Your task to perform on an android device: Open accessibility settings Image 0: 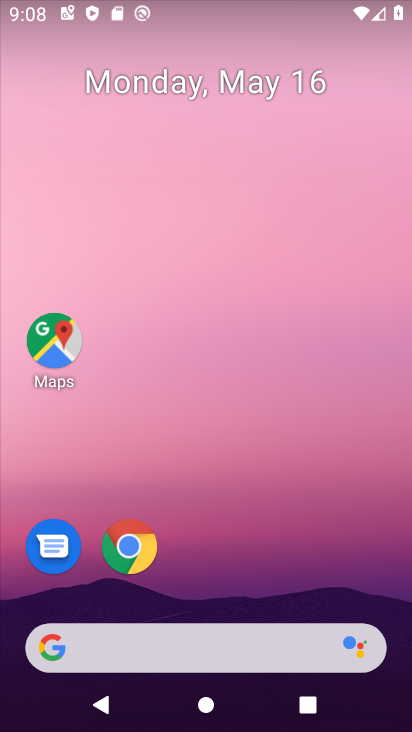
Step 0: drag from (198, 674) to (199, 223)
Your task to perform on an android device: Open accessibility settings Image 1: 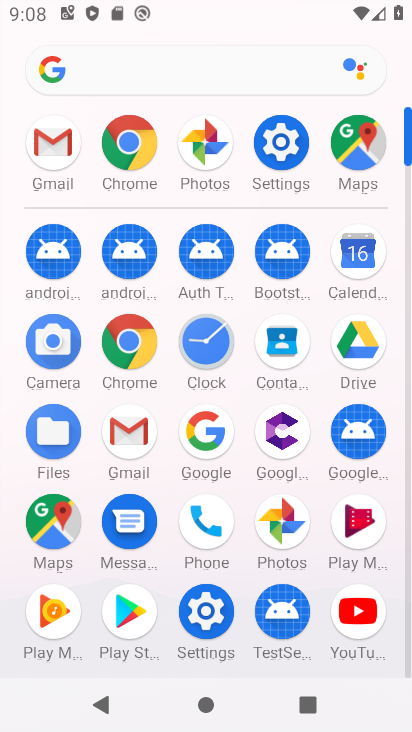
Step 1: click (306, 153)
Your task to perform on an android device: Open accessibility settings Image 2: 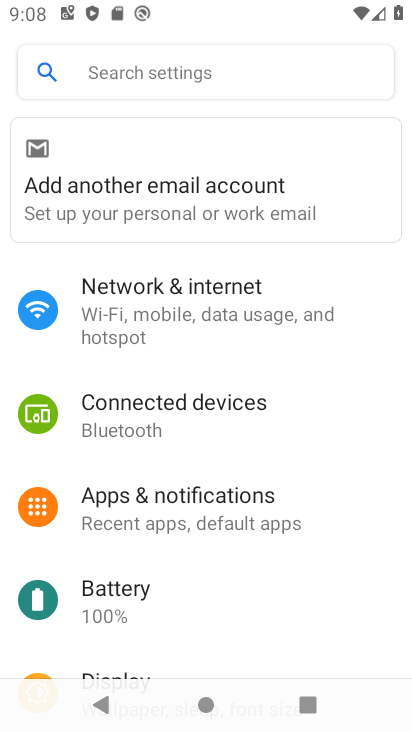
Step 2: click (176, 82)
Your task to perform on an android device: Open accessibility settings Image 3: 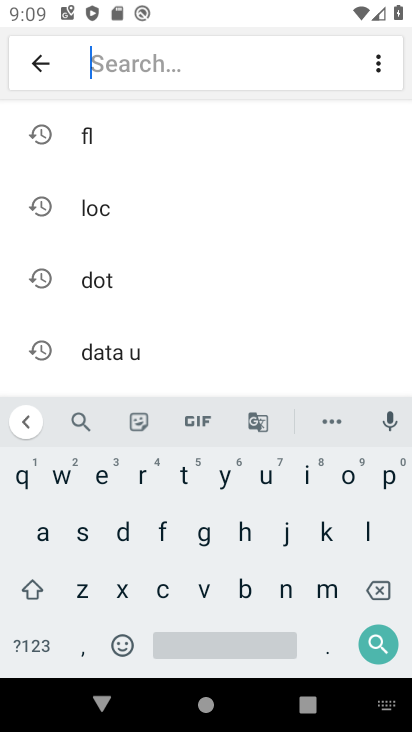
Step 3: click (49, 529)
Your task to perform on an android device: Open accessibility settings Image 4: 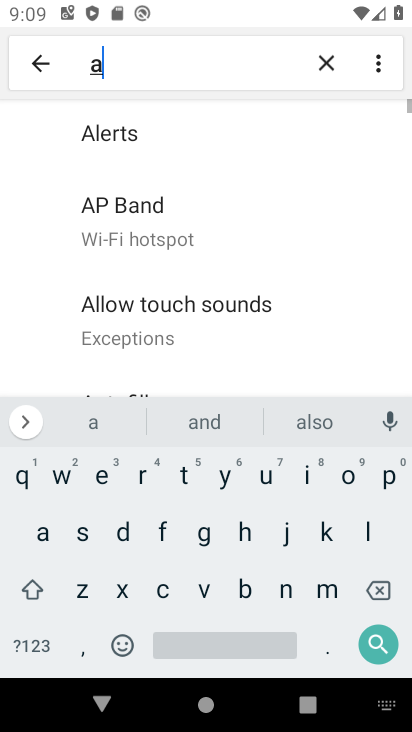
Step 4: click (165, 593)
Your task to perform on an android device: Open accessibility settings Image 5: 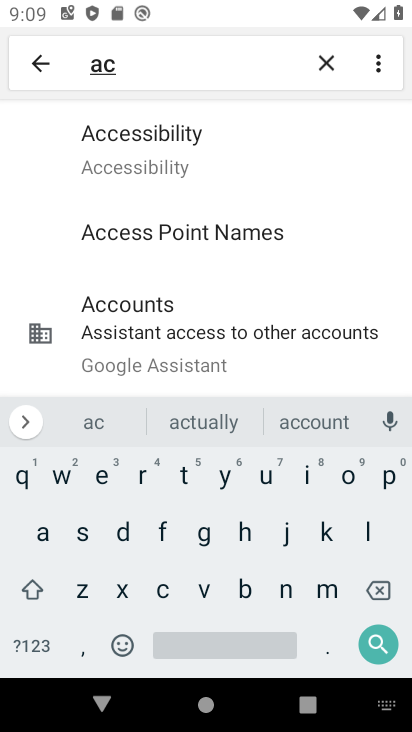
Step 5: click (168, 150)
Your task to perform on an android device: Open accessibility settings Image 6: 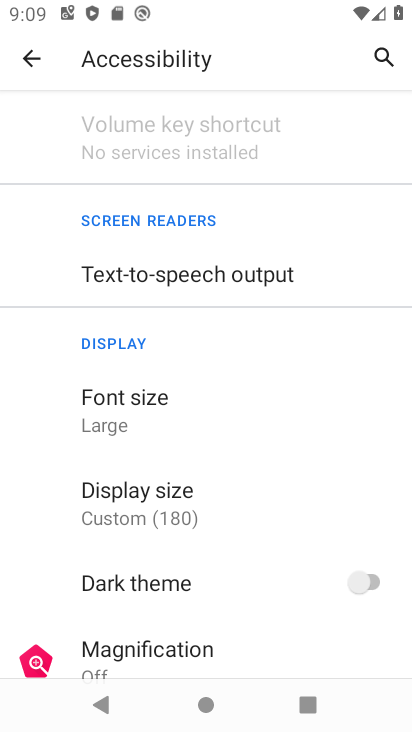
Step 6: task complete